Your task to perform on an android device: open chrome privacy settings Image 0: 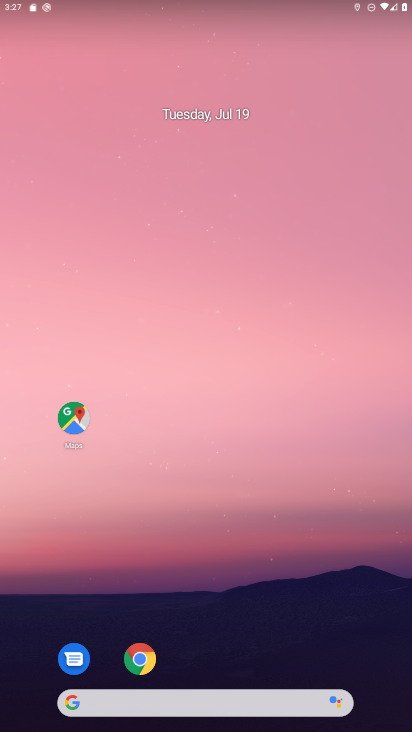
Step 0: click (136, 658)
Your task to perform on an android device: open chrome privacy settings Image 1: 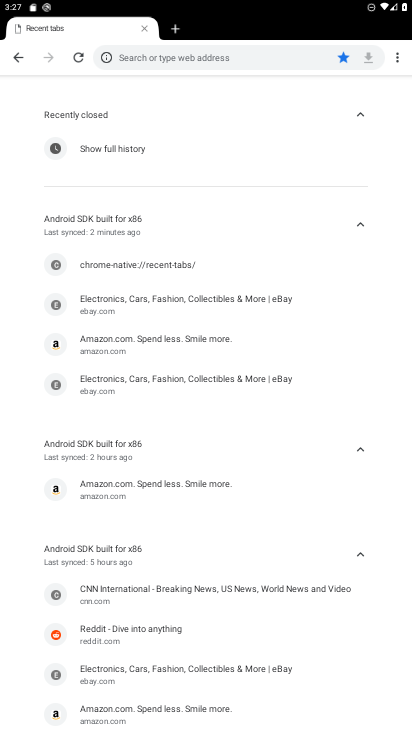
Step 1: click (402, 62)
Your task to perform on an android device: open chrome privacy settings Image 2: 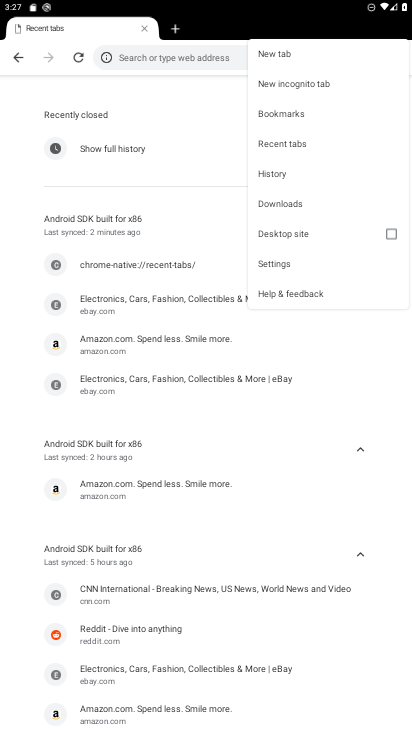
Step 2: click (270, 267)
Your task to perform on an android device: open chrome privacy settings Image 3: 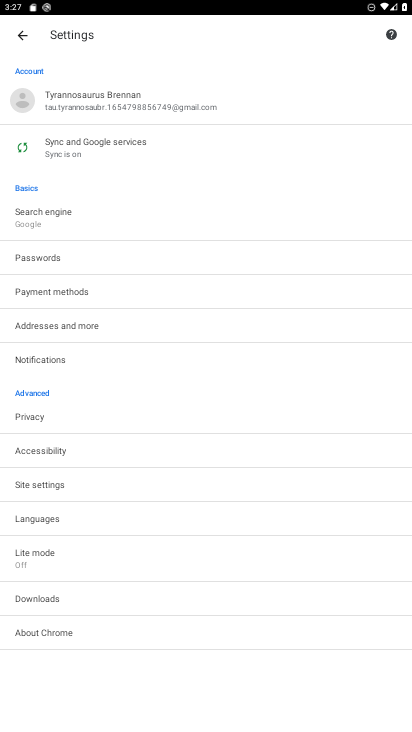
Step 3: click (71, 421)
Your task to perform on an android device: open chrome privacy settings Image 4: 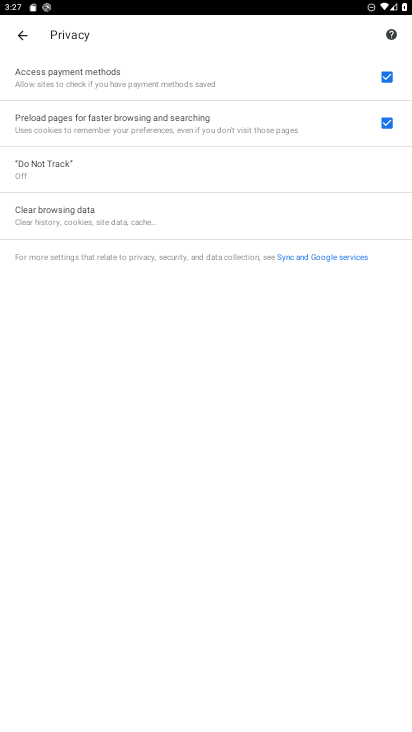
Step 4: task complete